Your task to perform on an android device: Open the calendar and show me this week's events? Image 0: 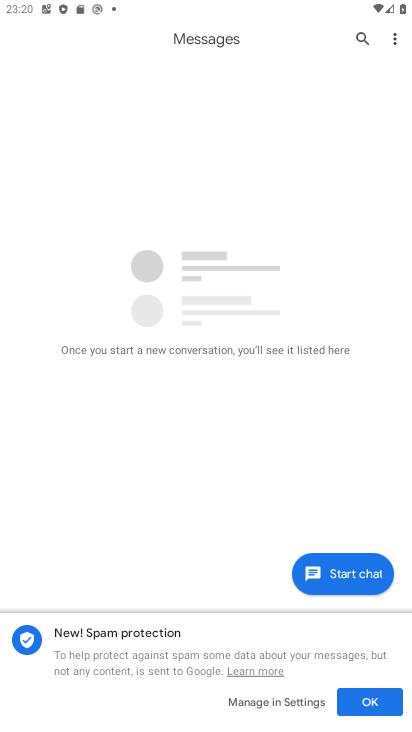
Step 0: press home button
Your task to perform on an android device: Open the calendar and show me this week's events? Image 1: 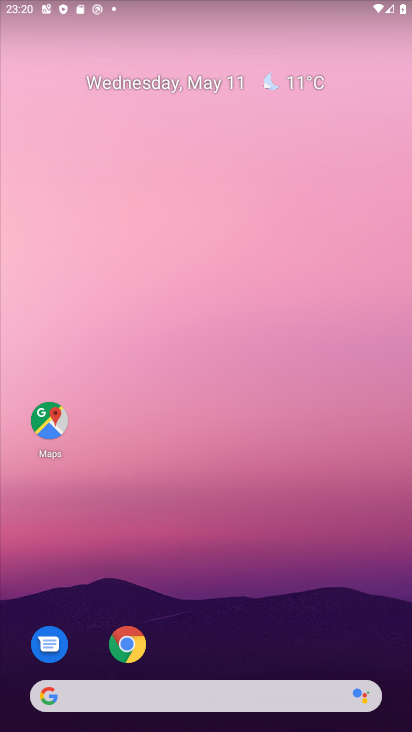
Step 1: drag from (222, 663) to (240, 70)
Your task to perform on an android device: Open the calendar and show me this week's events? Image 2: 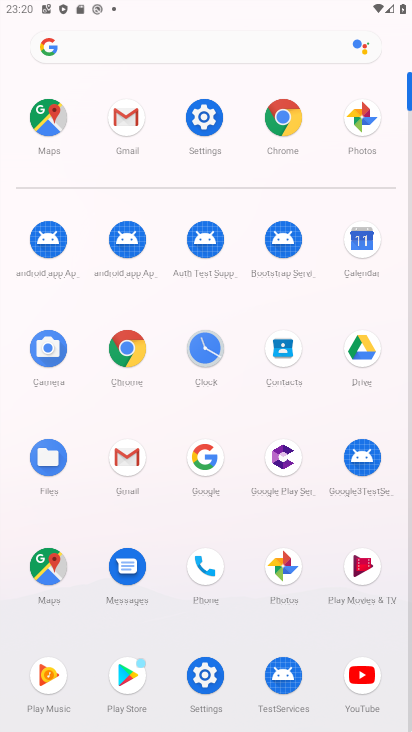
Step 2: click (360, 238)
Your task to perform on an android device: Open the calendar and show me this week's events? Image 3: 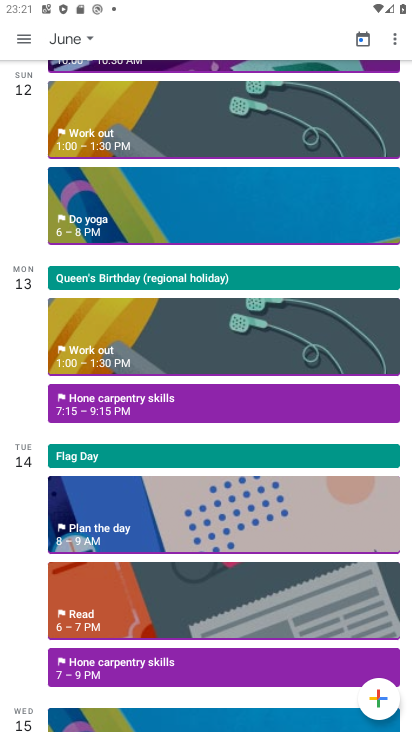
Step 3: click (24, 31)
Your task to perform on an android device: Open the calendar and show me this week's events? Image 4: 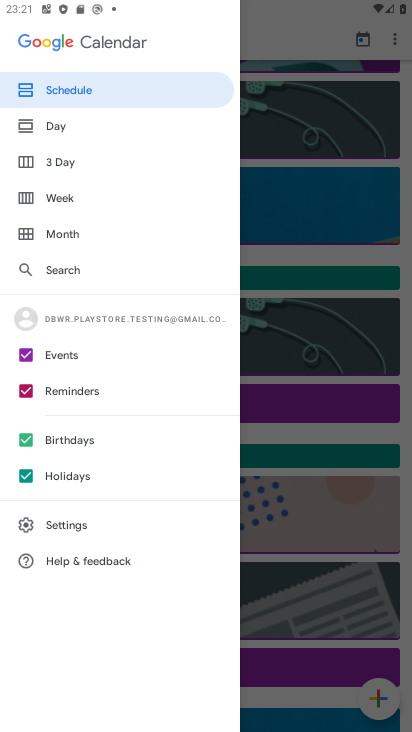
Step 4: click (27, 473)
Your task to perform on an android device: Open the calendar and show me this week's events? Image 5: 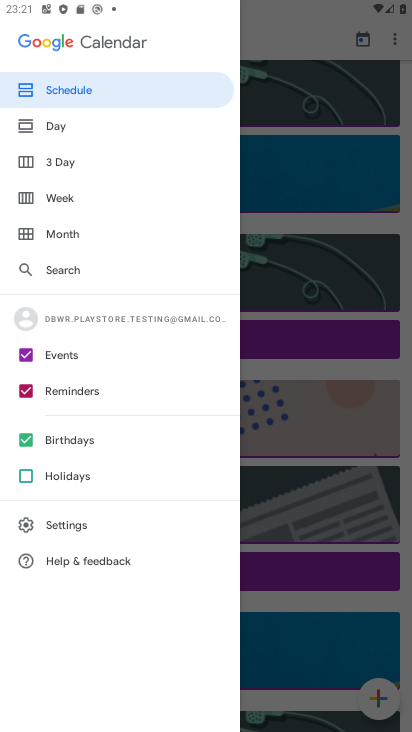
Step 5: click (27, 435)
Your task to perform on an android device: Open the calendar and show me this week's events? Image 6: 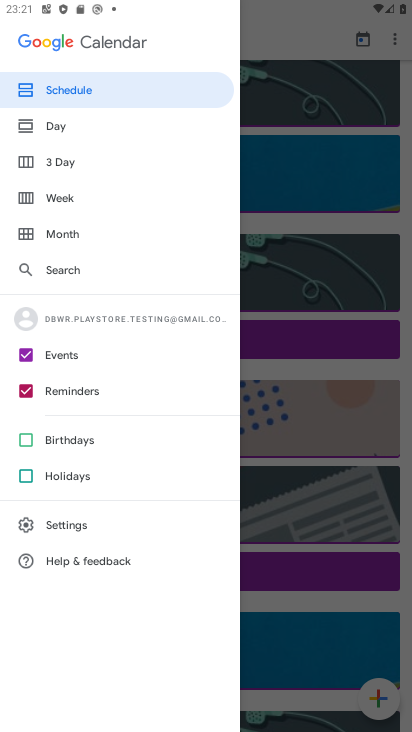
Step 6: click (35, 388)
Your task to perform on an android device: Open the calendar and show me this week's events? Image 7: 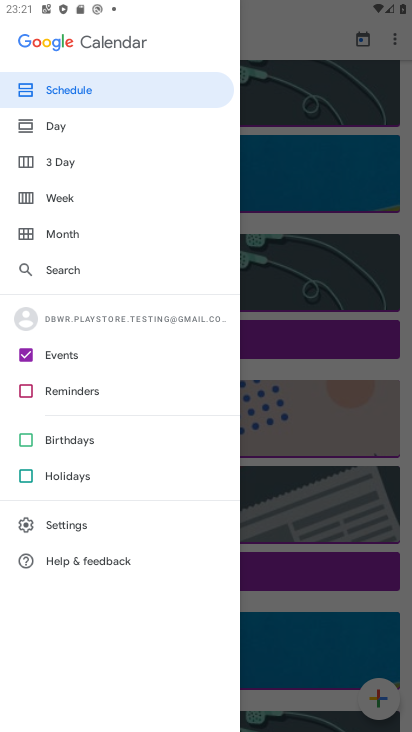
Step 7: click (36, 190)
Your task to perform on an android device: Open the calendar and show me this week's events? Image 8: 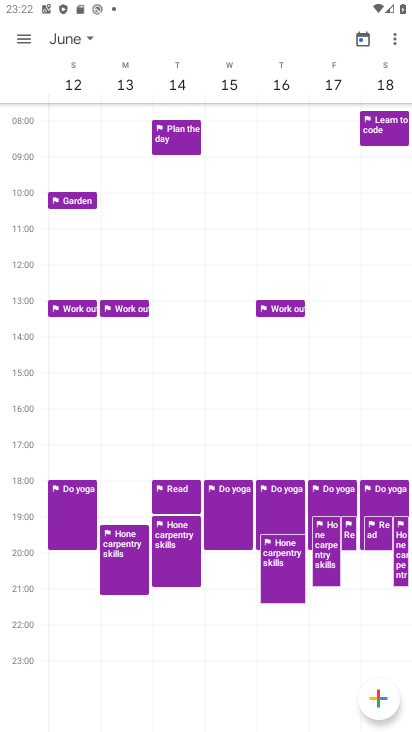
Step 8: drag from (65, 79) to (405, 87)
Your task to perform on an android device: Open the calendar and show me this week's events? Image 9: 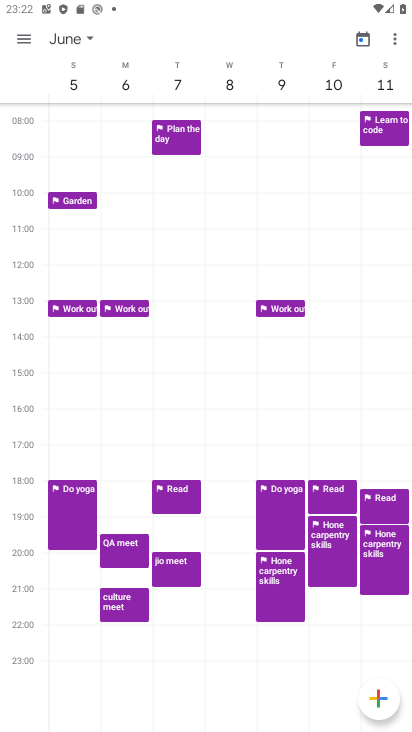
Step 9: drag from (70, 85) to (403, 78)
Your task to perform on an android device: Open the calendar and show me this week's events? Image 10: 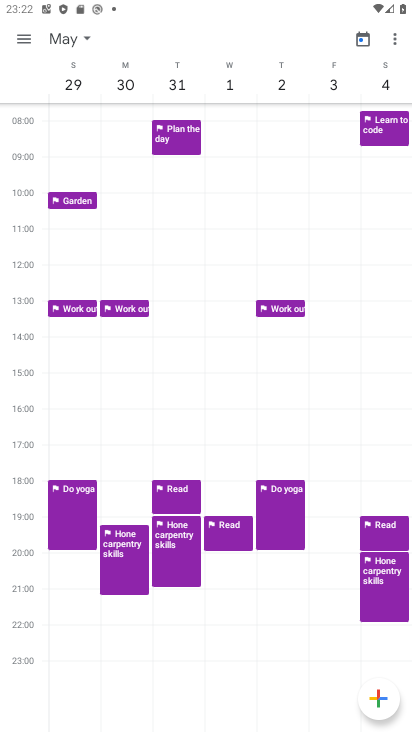
Step 10: drag from (62, 83) to (407, 102)
Your task to perform on an android device: Open the calendar and show me this week's events? Image 11: 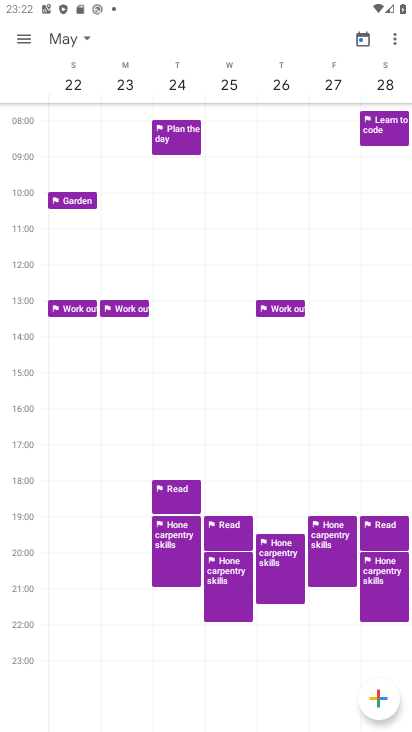
Step 11: click (81, 38)
Your task to perform on an android device: Open the calendar and show me this week's events? Image 12: 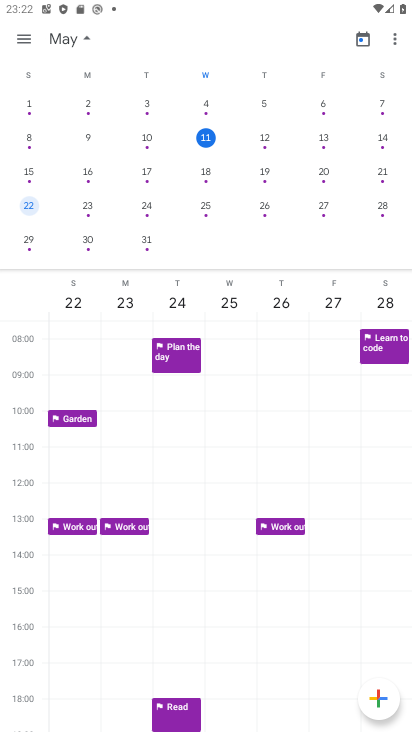
Step 12: click (205, 137)
Your task to perform on an android device: Open the calendar and show me this week's events? Image 13: 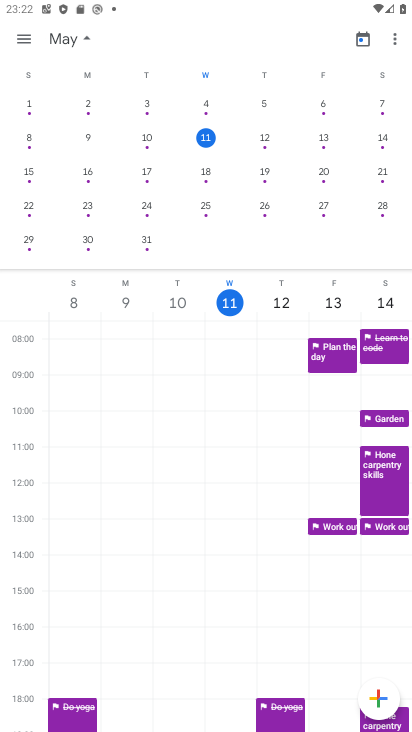
Step 13: click (234, 300)
Your task to perform on an android device: Open the calendar and show me this week's events? Image 14: 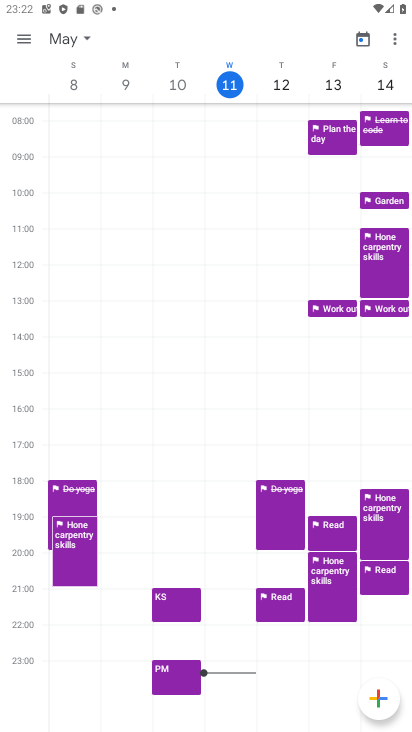
Step 14: click (235, 85)
Your task to perform on an android device: Open the calendar and show me this week's events? Image 15: 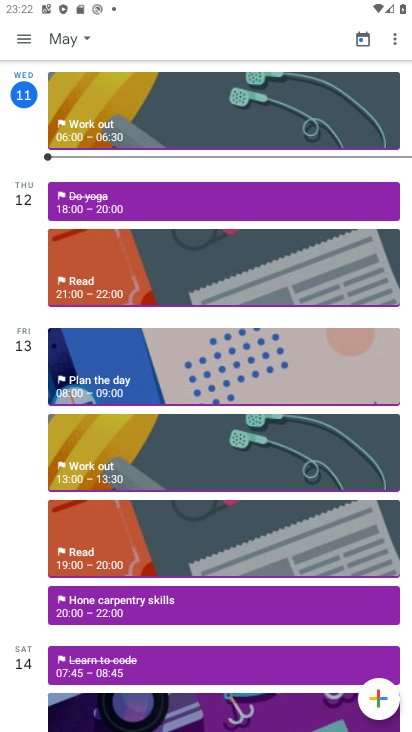
Step 15: task complete